Your task to perform on an android device: Open eBay Image 0: 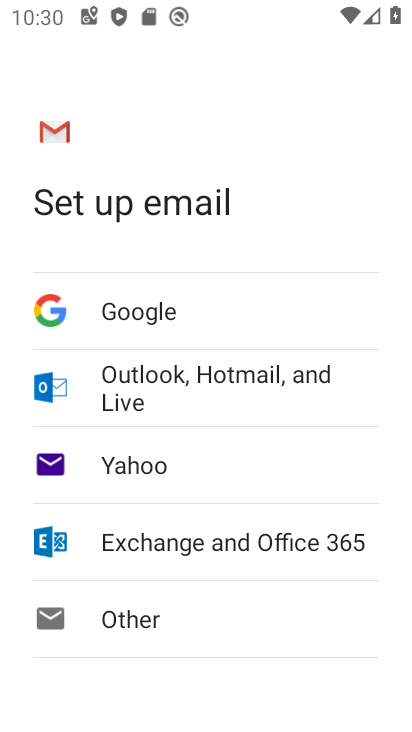
Step 0: press home button
Your task to perform on an android device: Open eBay Image 1: 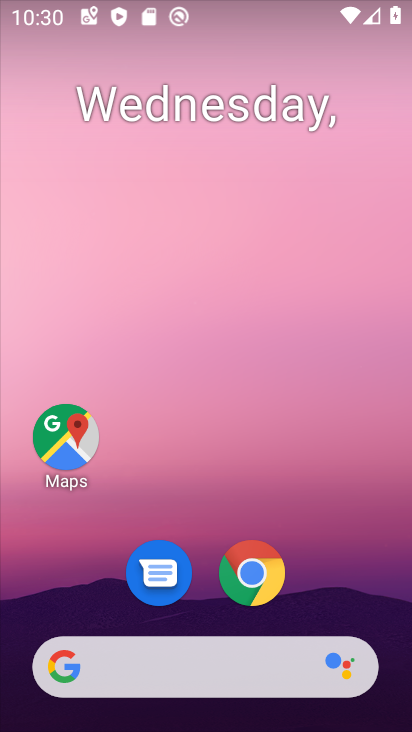
Step 1: drag from (382, 609) to (392, 301)
Your task to perform on an android device: Open eBay Image 2: 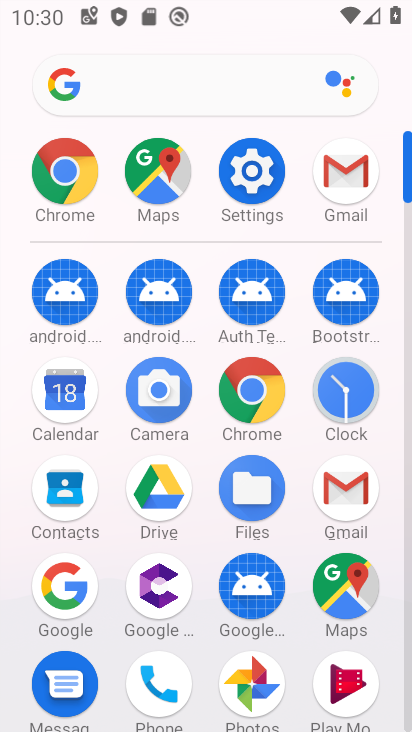
Step 2: click (249, 413)
Your task to perform on an android device: Open eBay Image 3: 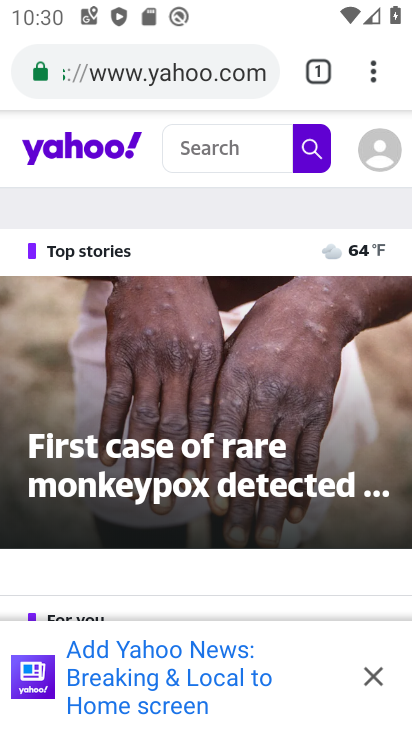
Step 3: press back button
Your task to perform on an android device: Open eBay Image 4: 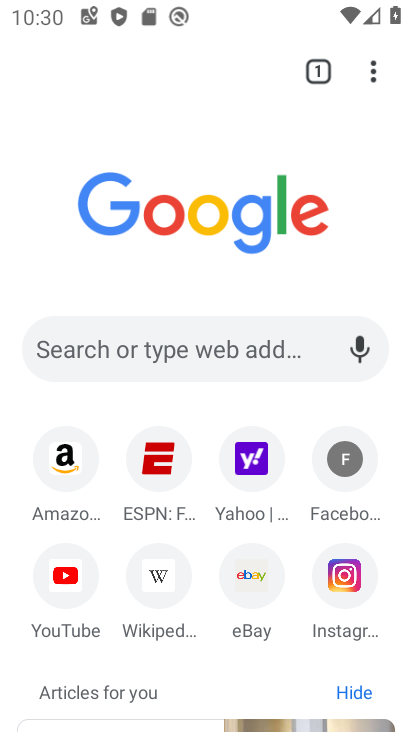
Step 4: click (268, 608)
Your task to perform on an android device: Open eBay Image 5: 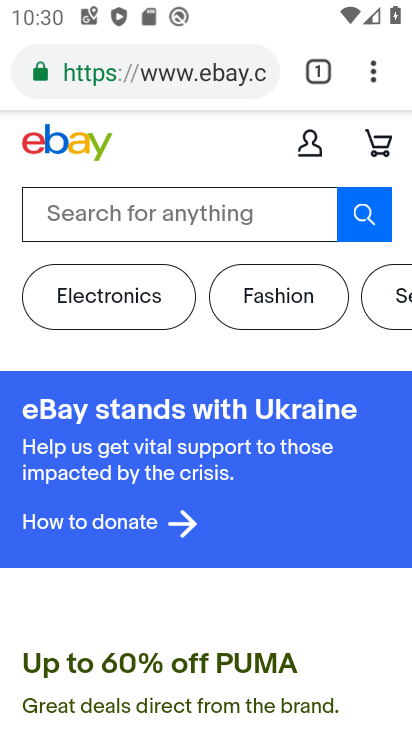
Step 5: task complete